Your task to perform on an android device: open app "Nova Launcher" (install if not already installed), go to login, and select forgot password Image 0: 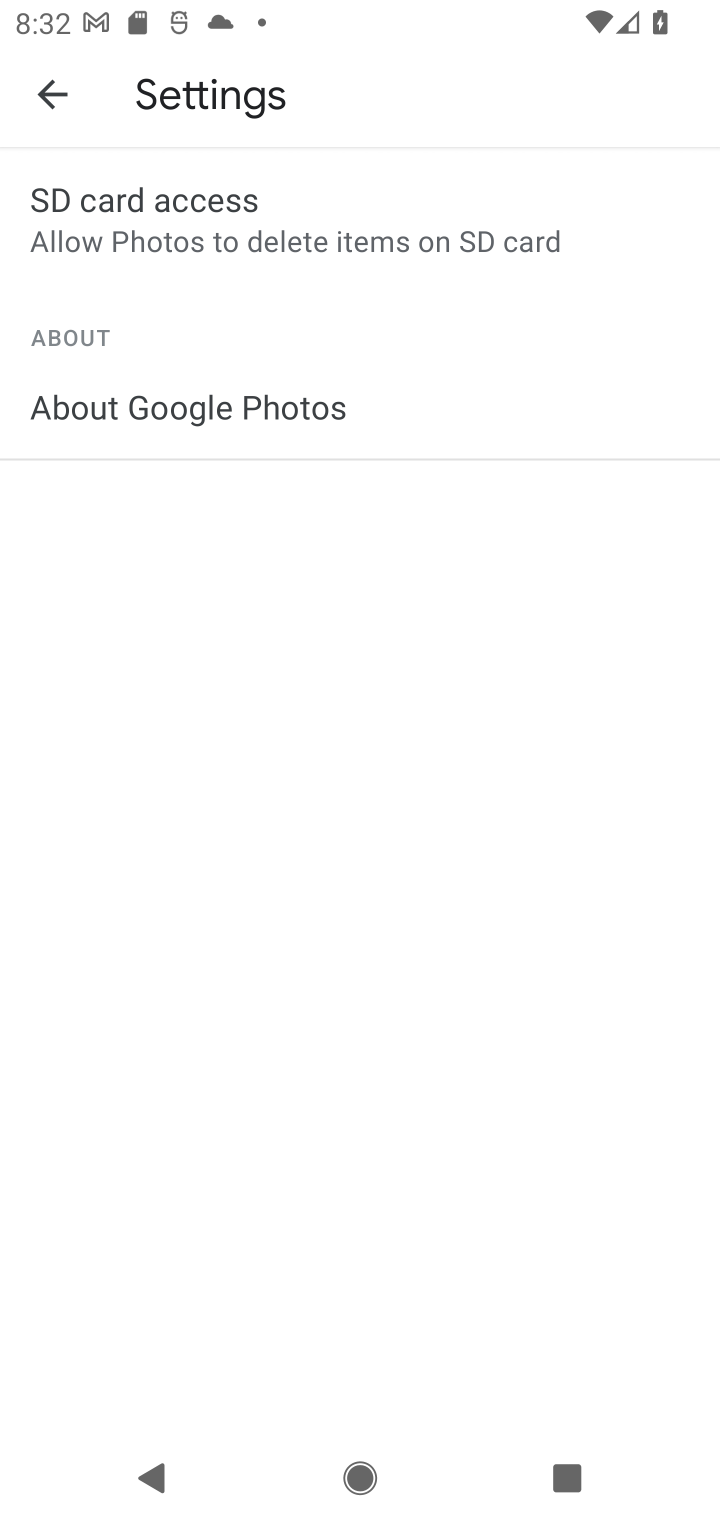
Step 0: press back button
Your task to perform on an android device: open app "Nova Launcher" (install if not already installed), go to login, and select forgot password Image 1: 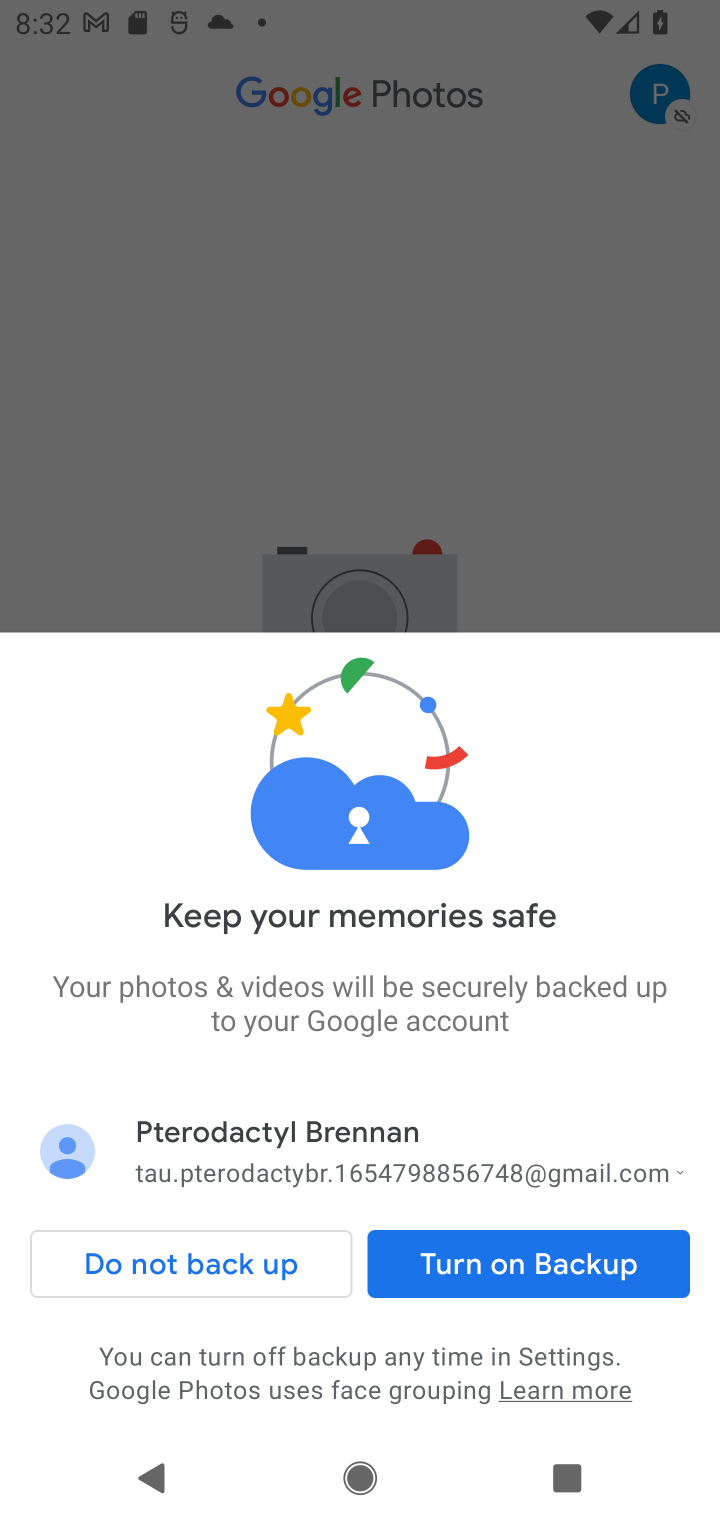
Step 1: press back button
Your task to perform on an android device: open app "Nova Launcher" (install if not already installed), go to login, and select forgot password Image 2: 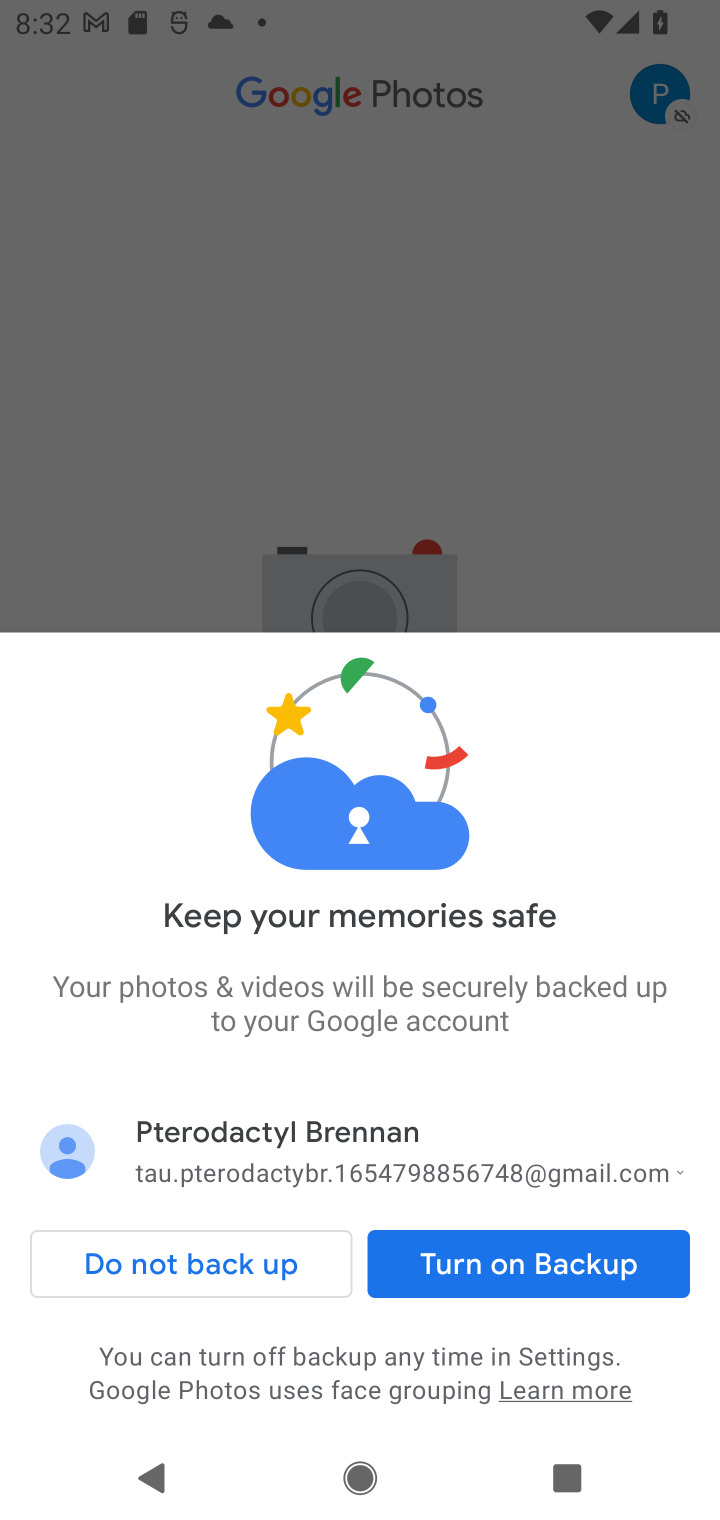
Step 2: press back button
Your task to perform on an android device: open app "Nova Launcher" (install if not already installed), go to login, and select forgot password Image 3: 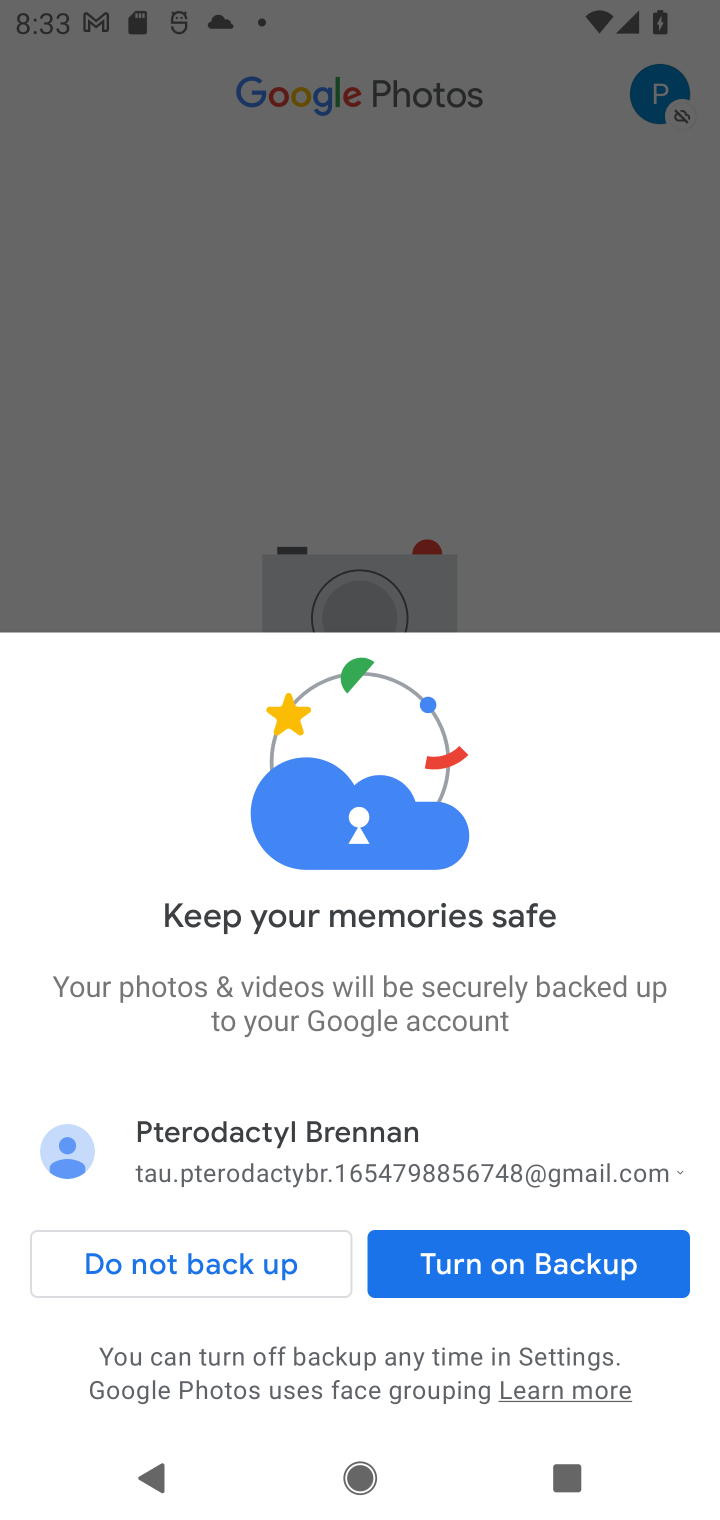
Step 3: press home button
Your task to perform on an android device: open app "Nova Launcher" (install if not already installed), go to login, and select forgot password Image 4: 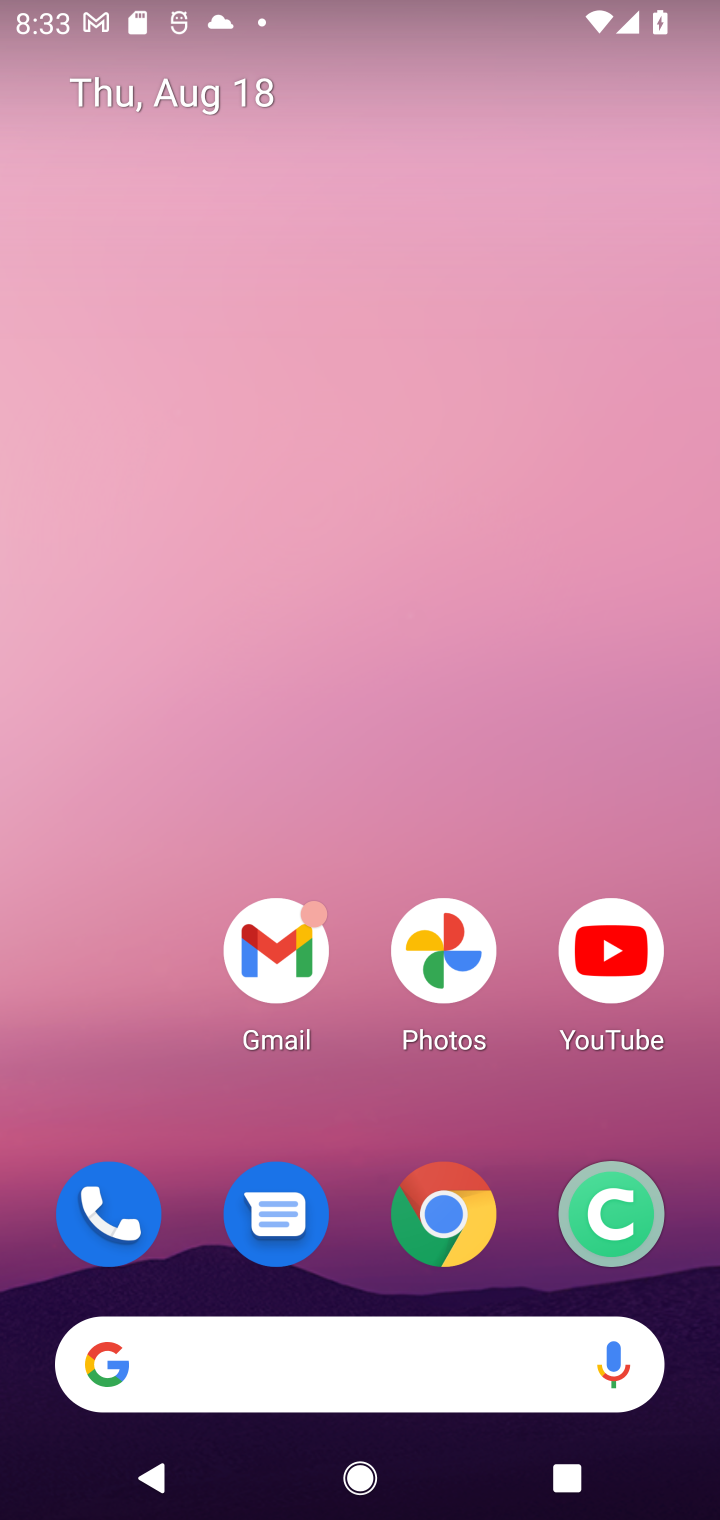
Step 4: drag from (364, 976) to (512, 52)
Your task to perform on an android device: open app "Nova Launcher" (install if not already installed), go to login, and select forgot password Image 5: 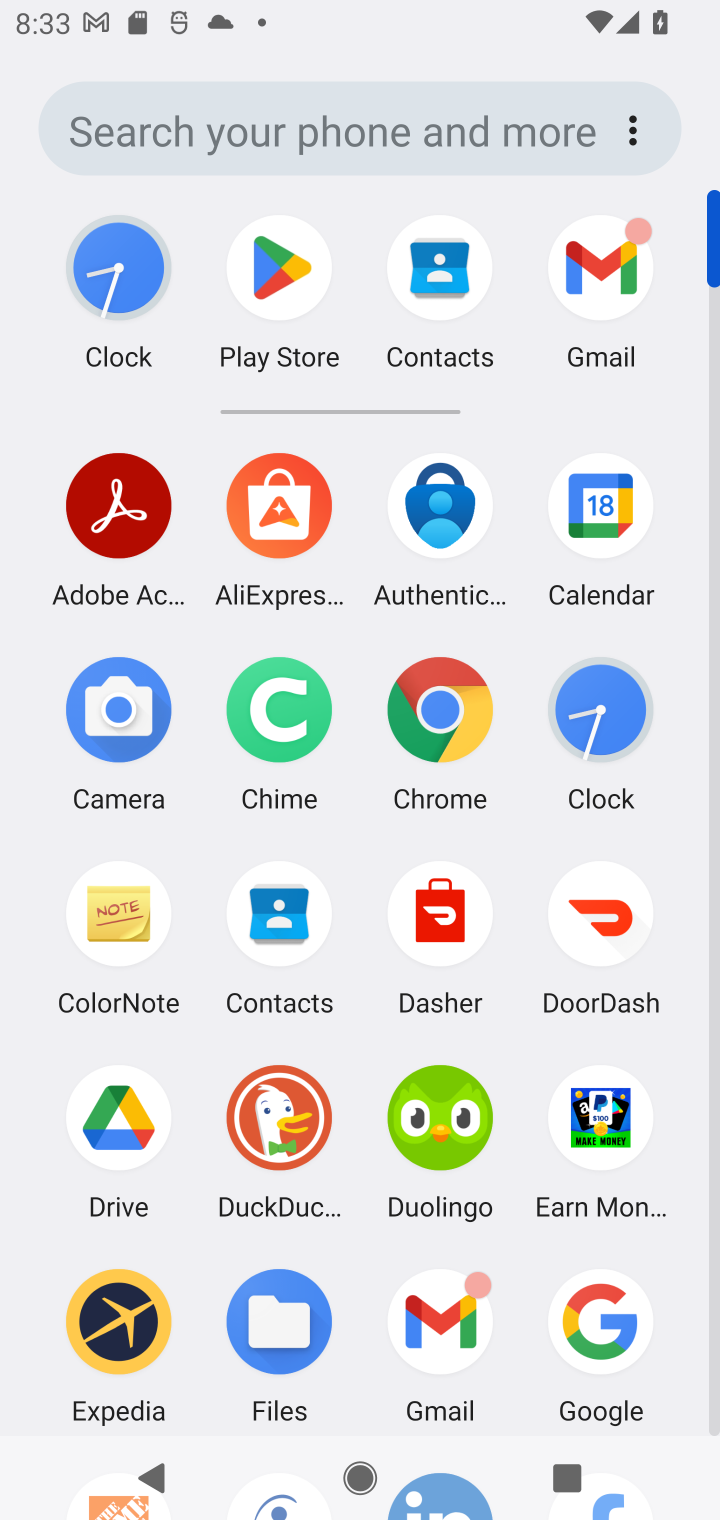
Step 5: drag from (363, 1259) to (523, 377)
Your task to perform on an android device: open app "Nova Launcher" (install if not already installed), go to login, and select forgot password Image 6: 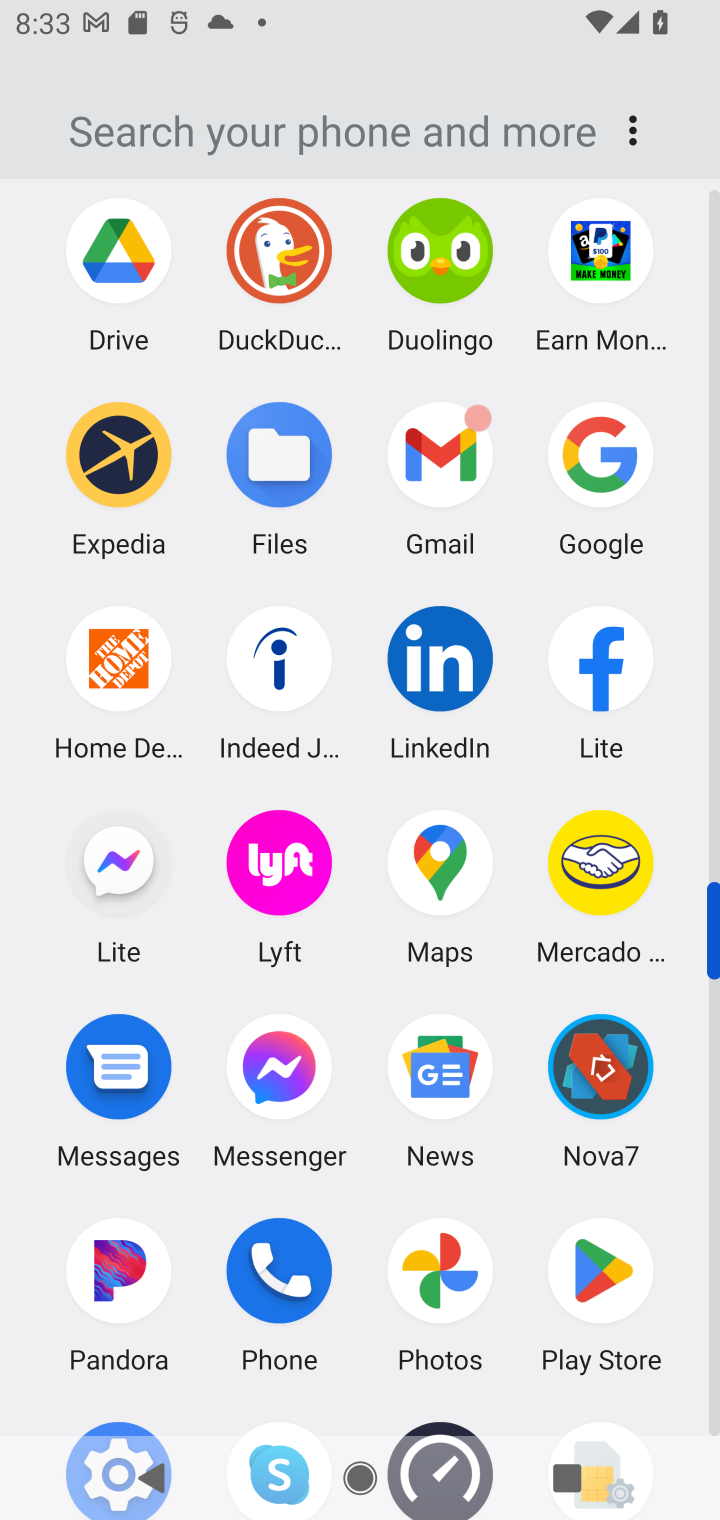
Step 6: click (584, 1095)
Your task to perform on an android device: open app "Nova Launcher" (install if not already installed), go to login, and select forgot password Image 7: 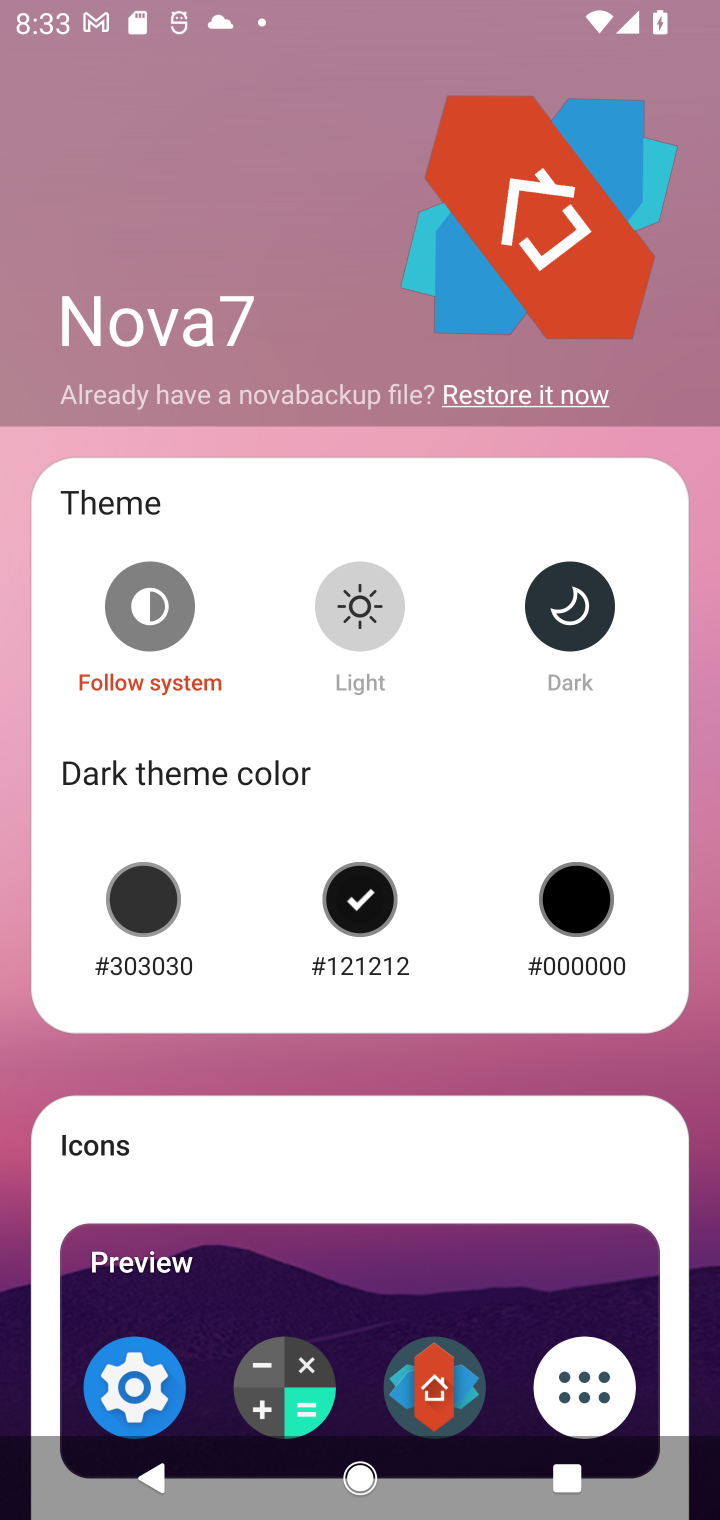
Step 7: task complete